Your task to perform on an android device: create a new album in the google photos Image 0: 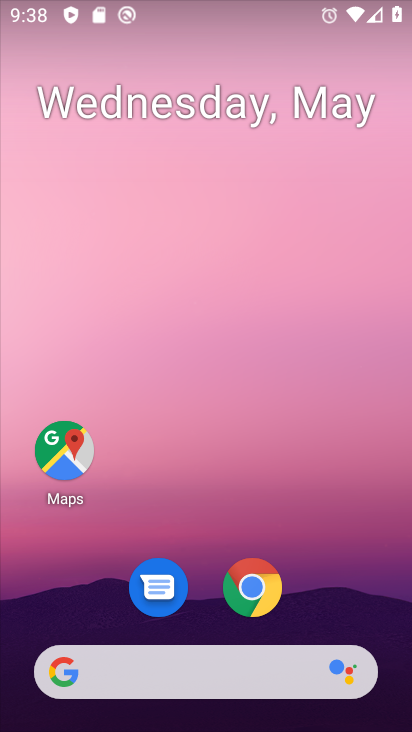
Step 0: drag from (75, 638) to (170, 245)
Your task to perform on an android device: create a new album in the google photos Image 1: 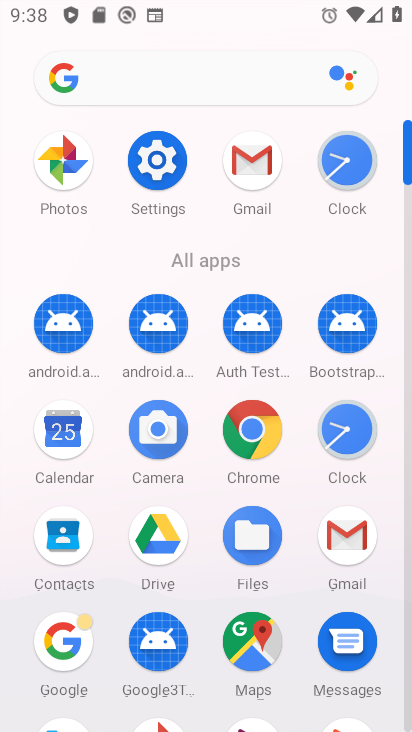
Step 1: drag from (215, 633) to (271, 396)
Your task to perform on an android device: create a new album in the google photos Image 2: 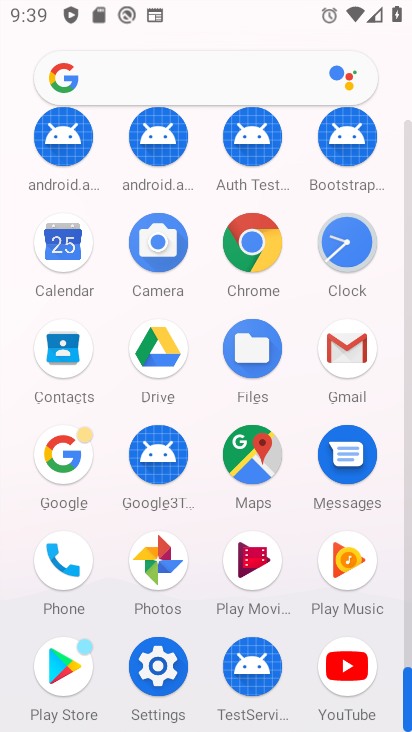
Step 2: click (160, 561)
Your task to perform on an android device: create a new album in the google photos Image 3: 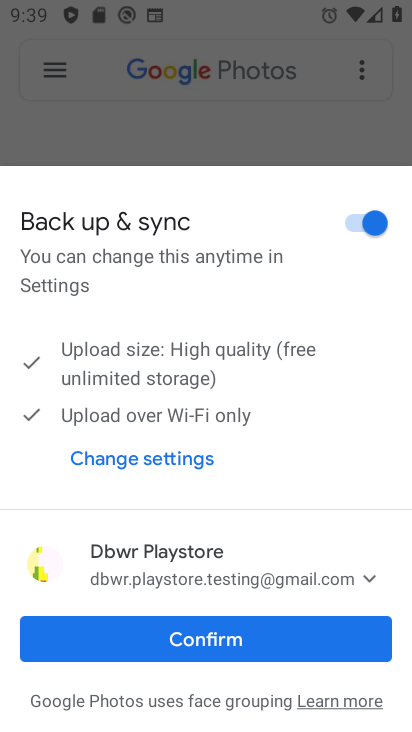
Step 3: click (265, 639)
Your task to perform on an android device: create a new album in the google photos Image 4: 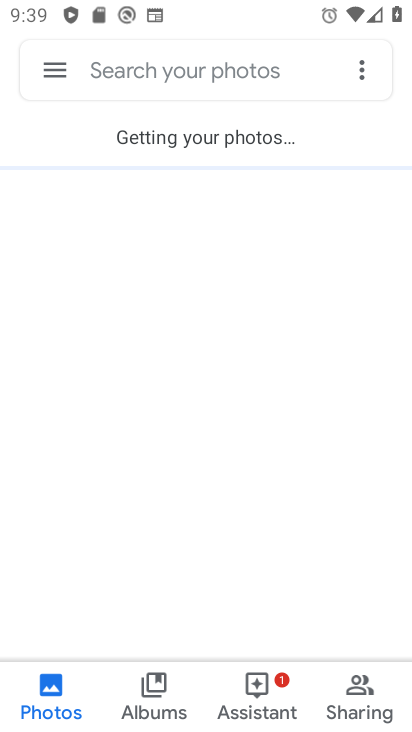
Step 4: click (360, 80)
Your task to perform on an android device: create a new album in the google photos Image 5: 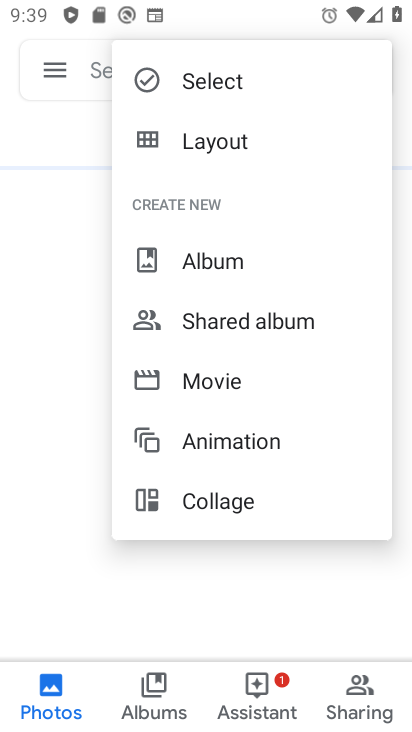
Step 5: click (253, 257)
Your task to perform on an android device: create a new album in the google photos Image 6: 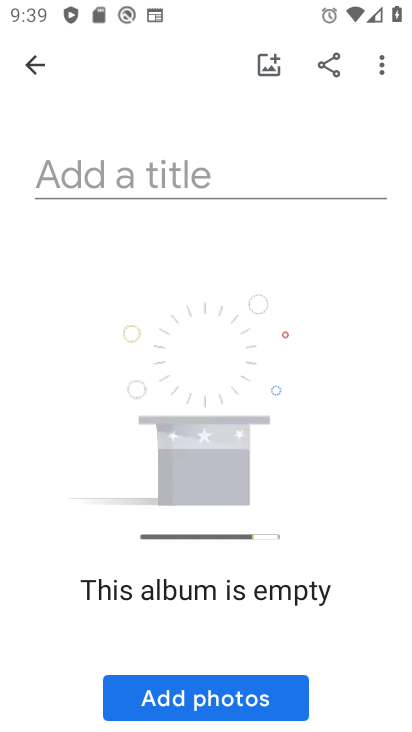
Step 6: click (228, 703)
Your task to perform on an android device: create a new album in the google photos Image 7: 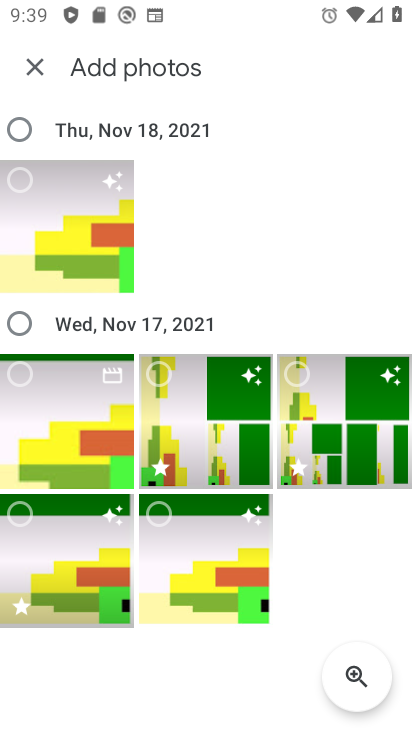
Step 7: click (30, 324)
Your task to perform on an android device: create a new album in the google photos Image 8: 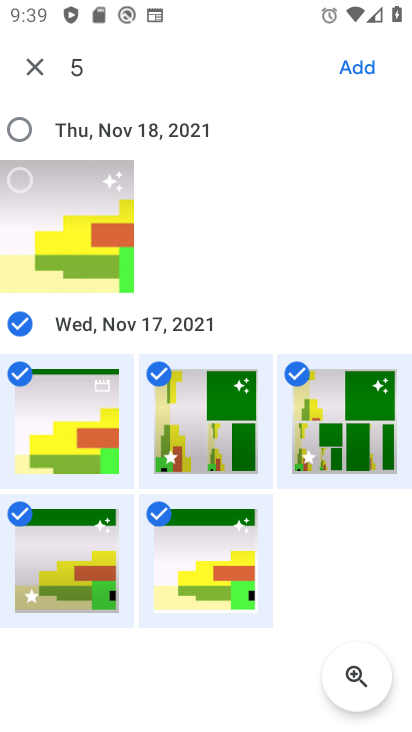
Step 8: click (360, 58)
Your task to perform on an android device: create a new album in the google photos Image 9: 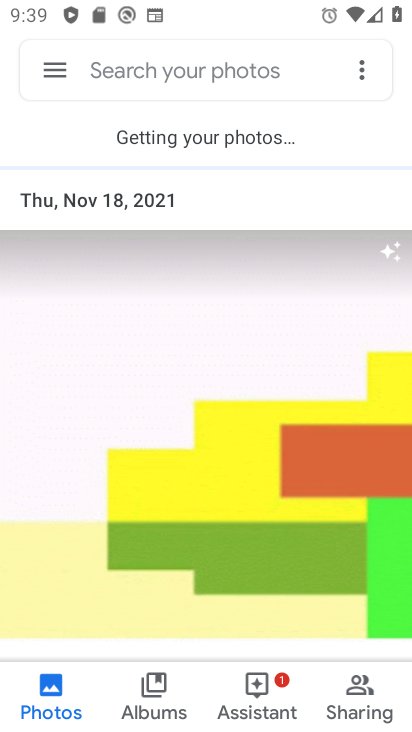
Step 9: drag from (203, 592) to (281, 180)
Your task to perform on an android device: create a new album in the google photos Image 10: 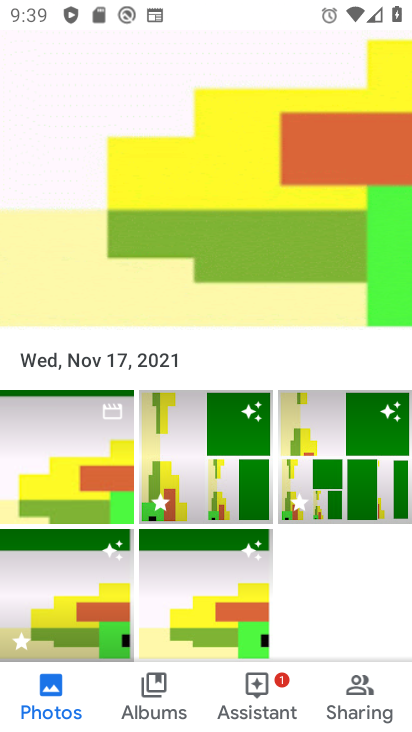
Step 10: drag from (309, 332) to (312, 610)
Your task to perform on an android device: create a new album in the google photos Image 11: 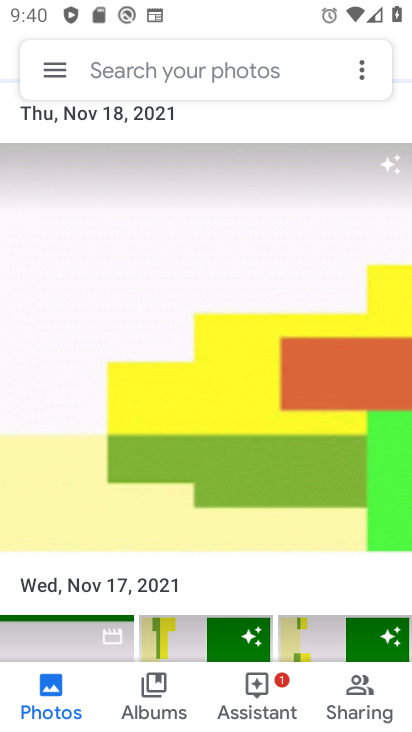
Step 11: click (359, 62)
Your task to perform on an android device: create a new album in the google photos Image 12: 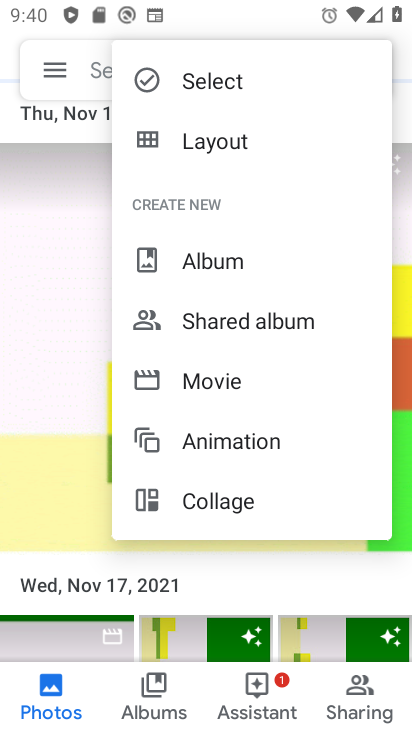
Step 12: click (237, 261)
Your task to perform on an android device: create a new album in the google photos Image 13: 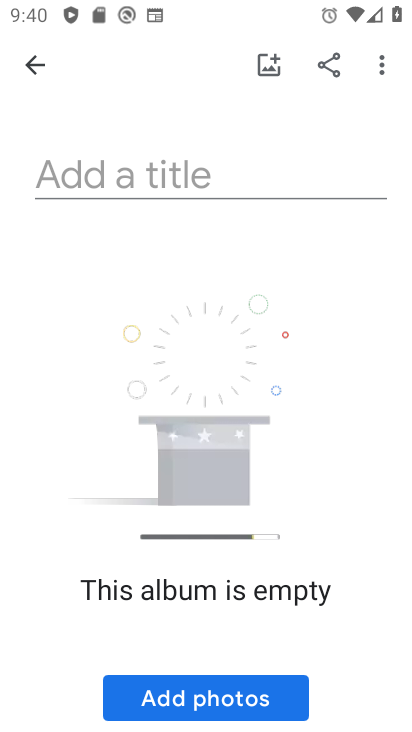
Step 13: click (116, 171)
Your task to perform on an android device: create a new album in the google photos Image 14: 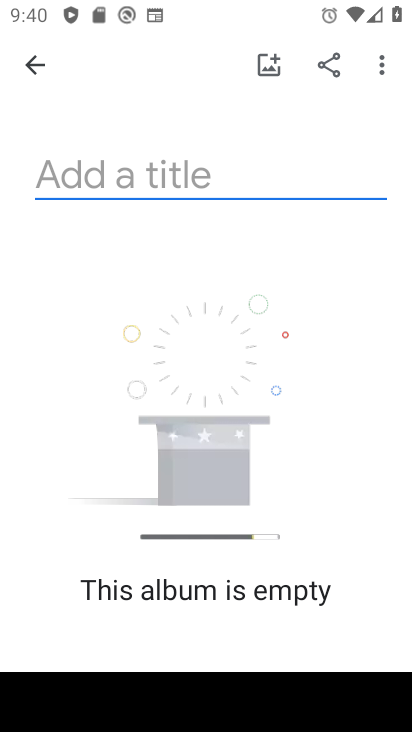
Step 14: type "oo"
Your task to perform on an android device: create a new album in the google photos Image 15: 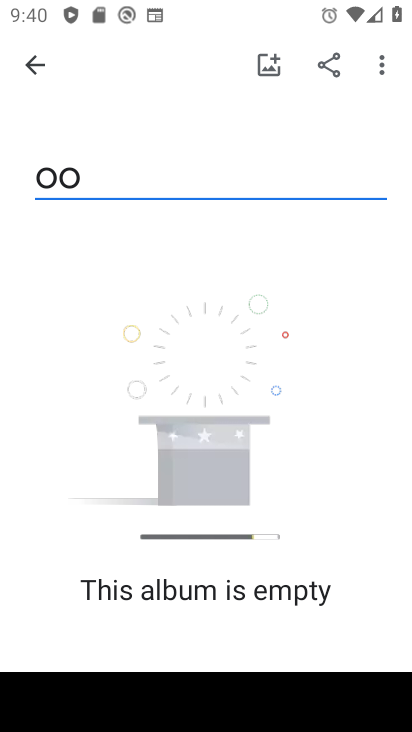
Step 15: click (274, 78)
Your task to perform on an android device: create a new album in the google photos Image 16: 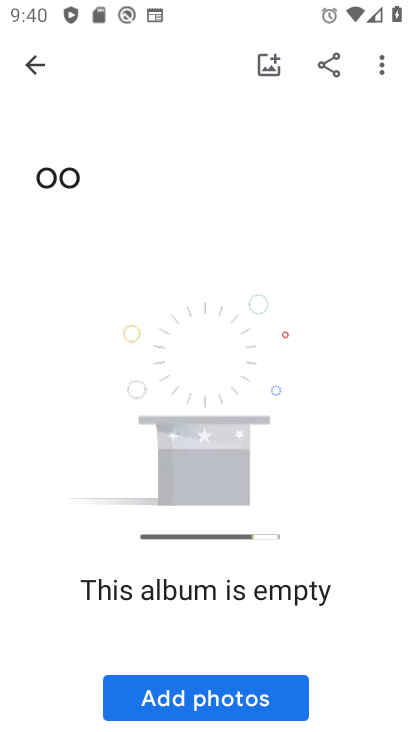
Step 16: click (210, 684)
Your task to perform on an android device: create a new album in the google photos Image 17: 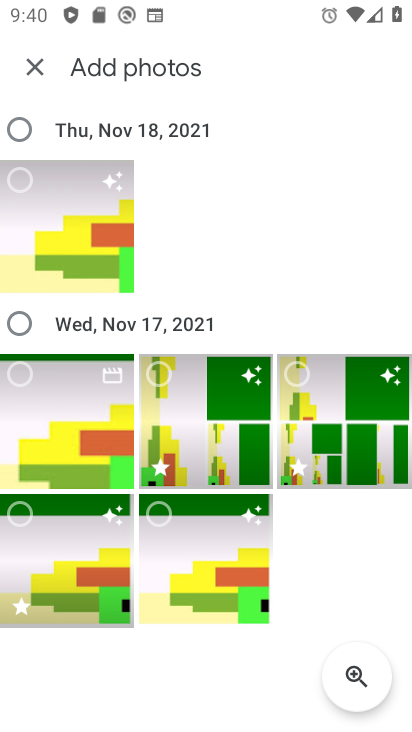
Step 17: click (30, 327)
Your task to perform on an android device: create a new album in the google photos Image 18: 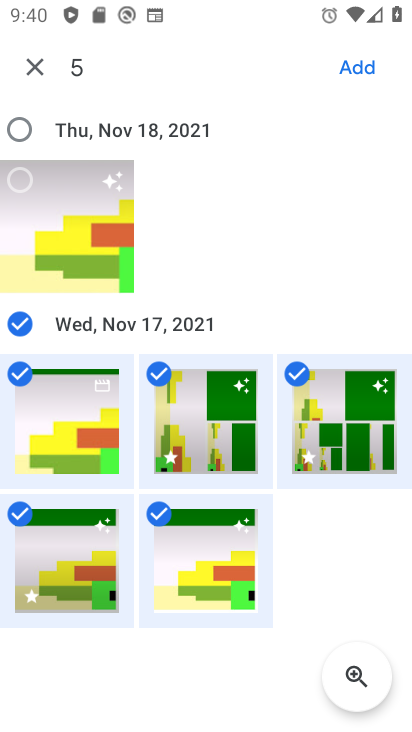
Step 18: click (26, 129)
Your task to perform on an android device: create a new album in the google photos Image 19: 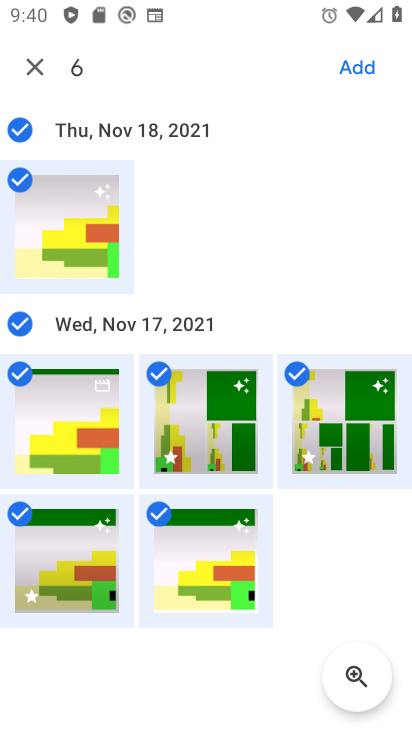
Step 19: click (356, 73)
Your task to perform on an android device: create a new album in the google photos Image 20: 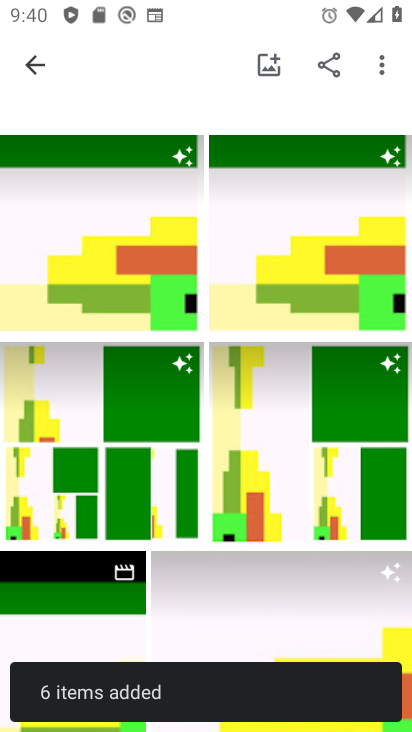
Step 20: task complete